Your task to perform on an android device: Go to Yahoo.com Image 0: 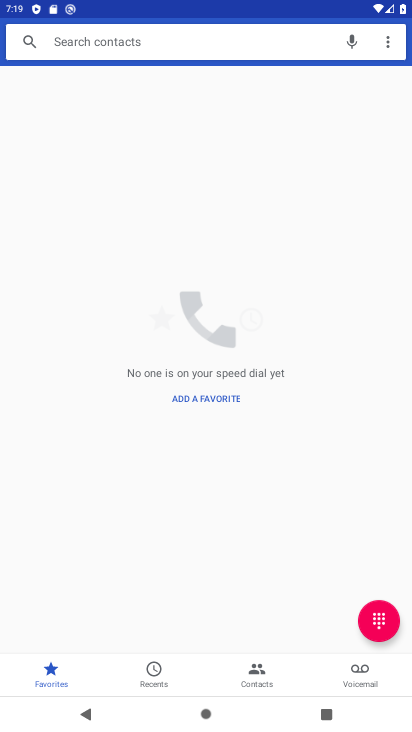
Step 0: press home button
Your task to perform on an android device: Go to Yahoo.com Image 1: 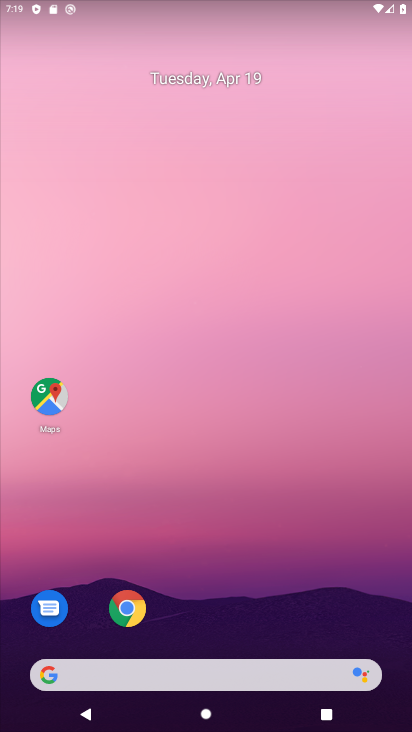
Step 1: click (127, 613)
Your task to perform on an android device: Go to Yahoo.com Image 2: 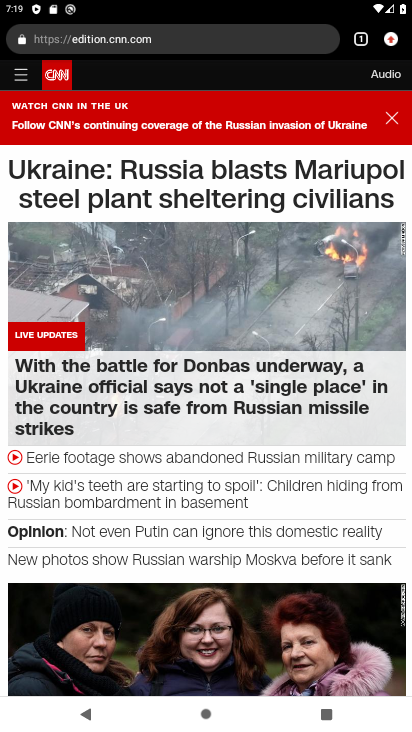
Step 2: drag from (389, 41) to (262, 77)
Your task to perform on an android device: Go to Yahoo.com Image 3: 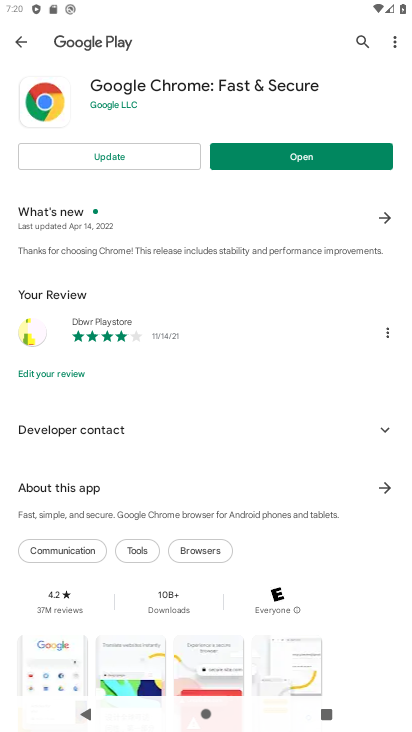
Step 3: click (154, 159)
Your task to perform on an android device: Go to Yahoo.com Image 4: 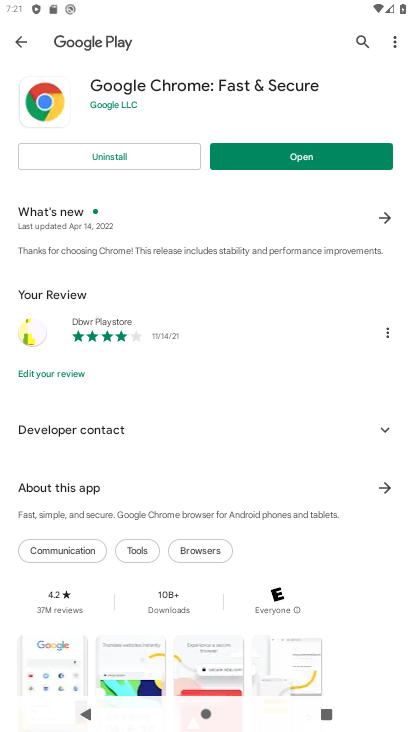
Step 4: click (308, 157)
Your task to perform on an android device: Go to Yahoo.com Image 5: 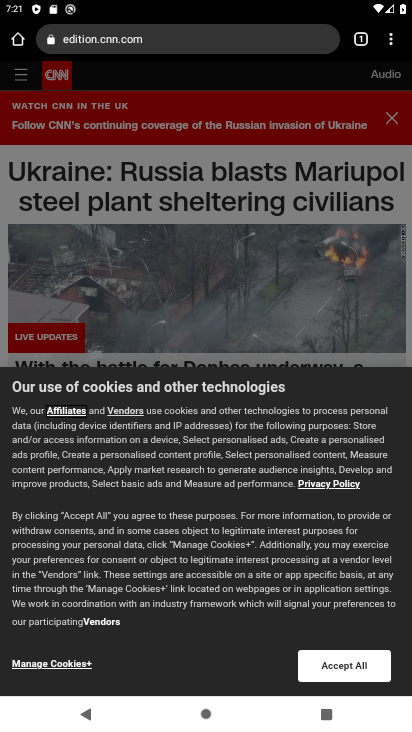
Step 5: drag from (394, 43) to (248, 70)
Your task to perform on an android device: Go to Yahoo.com Image 6: 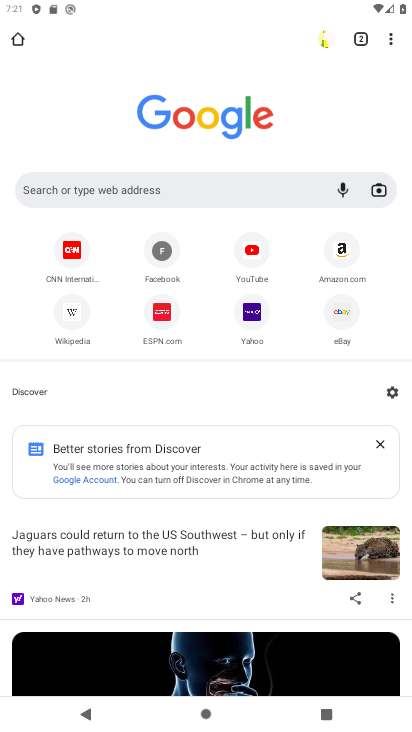
Step 6: click (236, 183)
Your task to perform on an android device: Go to Yahoo.com Image 7: 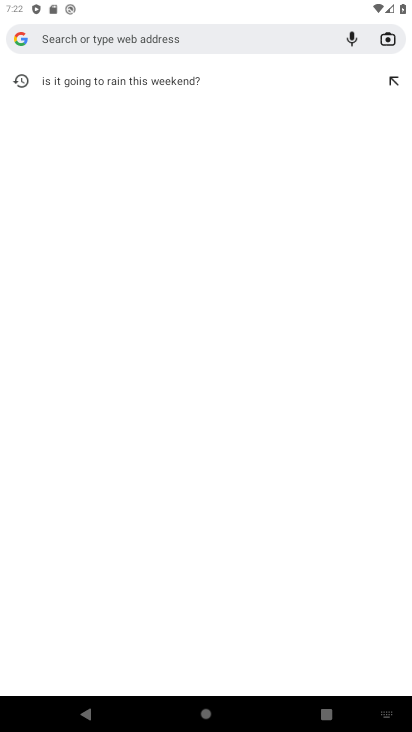
Step 7: type " Yahoo.com"
Your task to perform on an android device: Go to Yahoo.com Image 8: 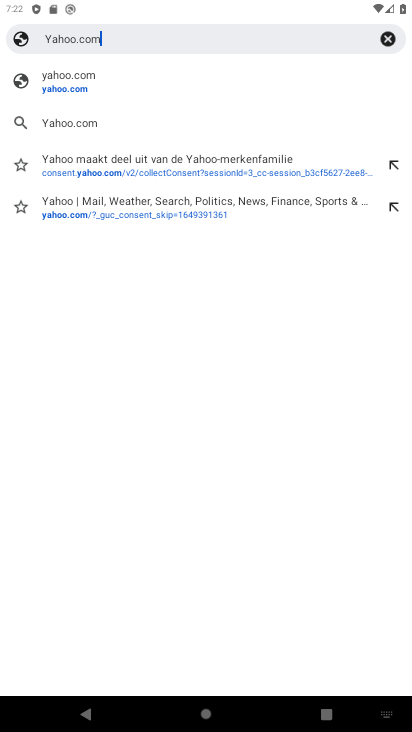
Step 8: click (55, 87)
Your task to perform on an android device: Go to Yahoo.com Image 9: 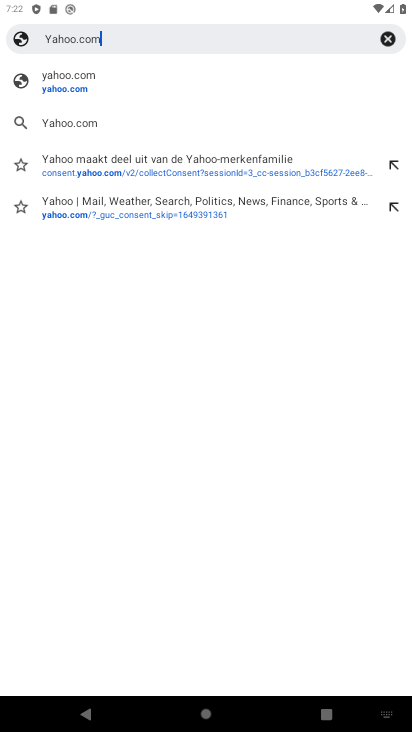
Step 9: click (73, 83)
Your task to perform on an android device: Go to Yahoo.com Image 10: 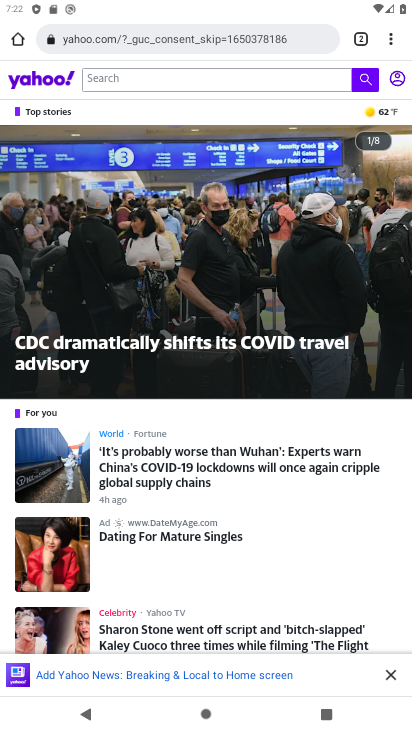
Step 10: task complete